Your task to perform on an android device: Search for sushi restaurants on Maps Image 0: 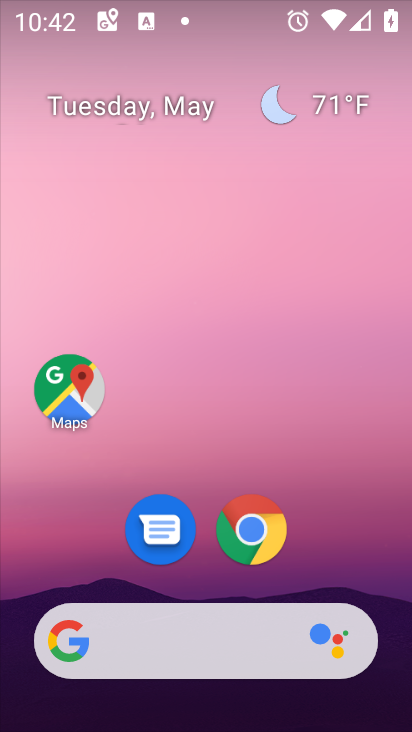
Step 0: drag from (272, 603) to (238, 283)
Your task to perform on an android device: Search for sushi restaurants on Maps Image 1: 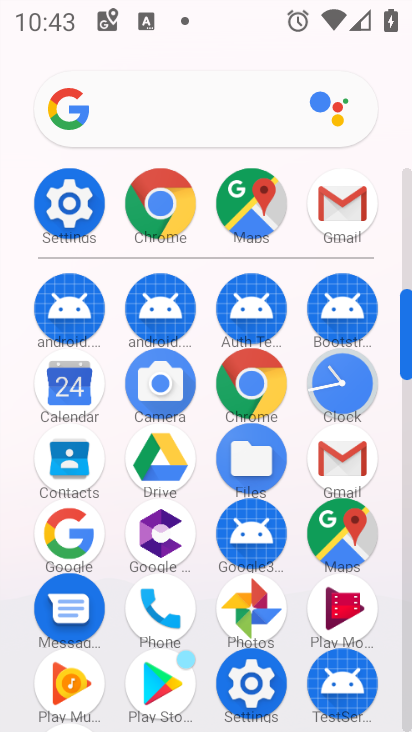
Step 1: click (345, 547)
Your task to perform on an android device: Search for sushi restaurants on Maps Image 2: 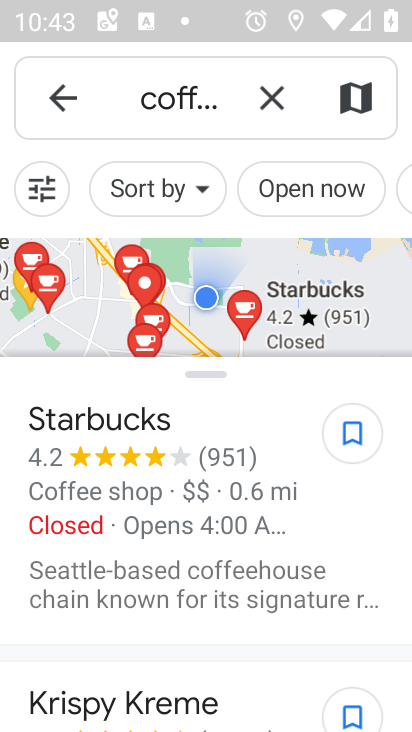
Step 2: click (274, 98)
Your task to perform on an android device: Search for sushi restaurants on Maps Image 3: 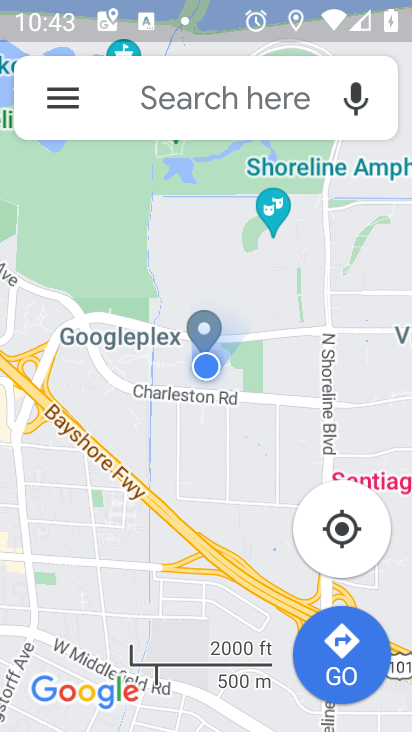
Step 3: click (190, 112)
Your task to perform on an android device: Search for sushi restaurants on Maps Image 4: 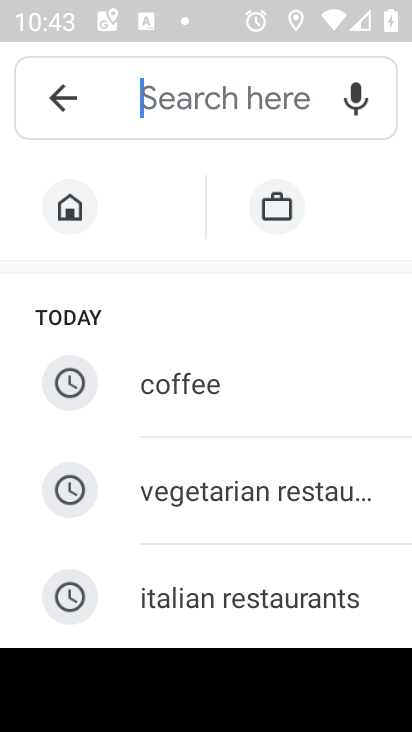
Step 4: type "sushi restaurants"
Your task to perform on an android device: Search for sushi restaurants on Maps Image 5: 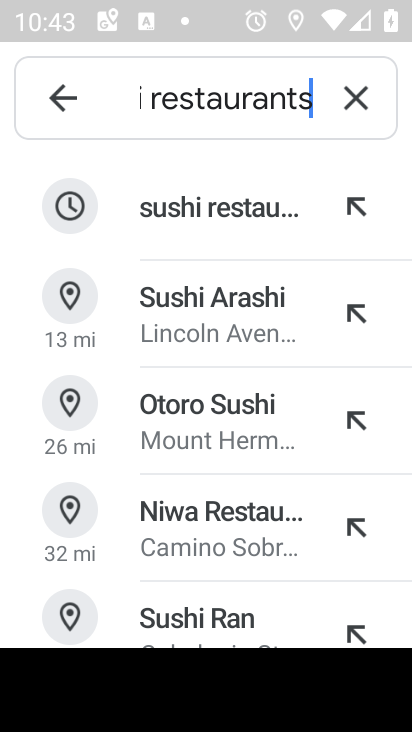
Step 5: click (248, 227)
Your task to perform on an android device: Search for sushi restaurants on Maps Image 6: 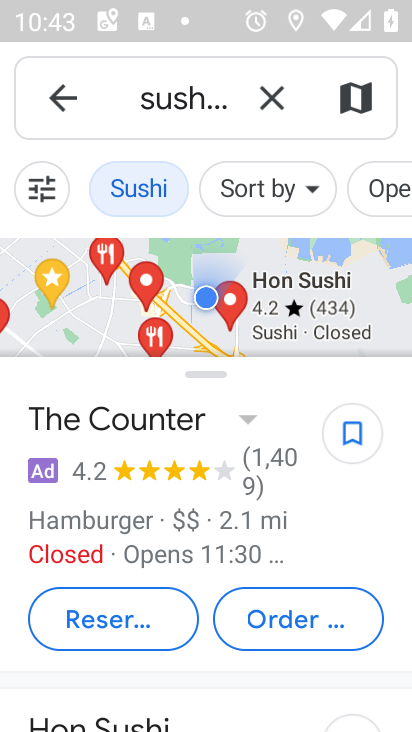
Step 6: task complete